Your task to perform on an android device: find snoozed emails in the gmail app Image 0: 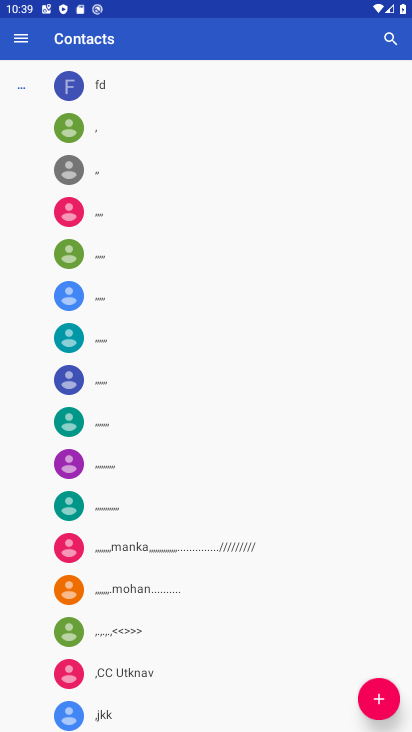
Step 0: press back button
Your task to perform on an android device: find snoozed emails in the gmail app Image 1: 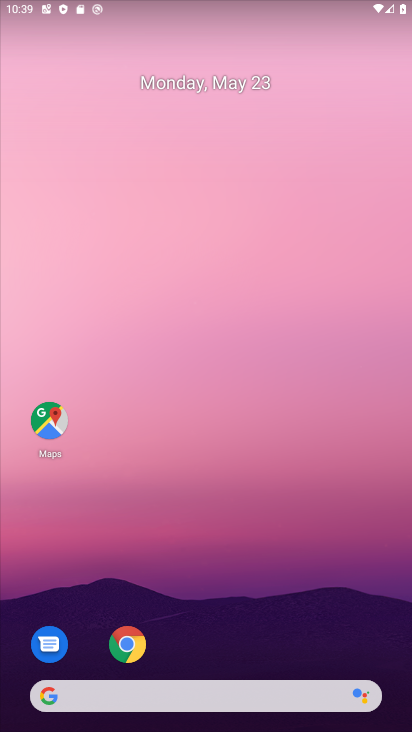
Step 1: drag from (252, 716) to (238, 268)
Your task to perform on an android device: find snoozed emails in the gmail app Image 2: 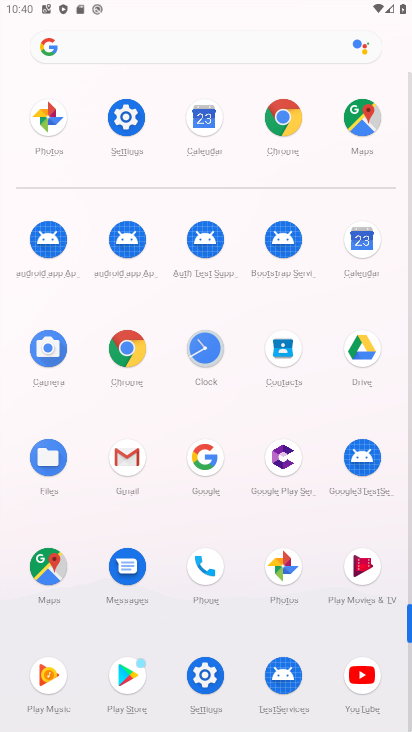
Step 2: click (120, 448)
Your task to perform on an android device: find snoozed emails in the gmail app Image 3: 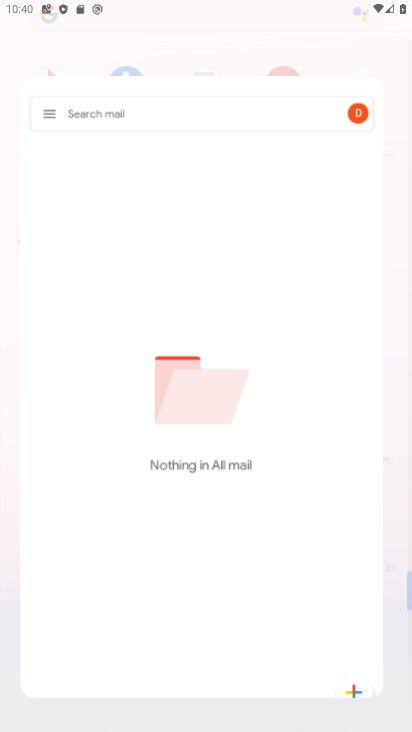
Step 3: click (131, 448)
Your task to perform on an android device: find snoozed emails in the gmail app Image 4: 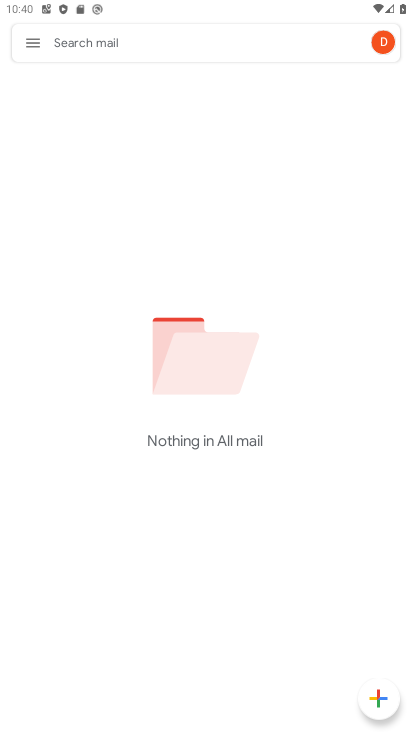
Step 4: drag from (24, 44) to (2, 546)
Your task to perform on an android device: find snoozed emails in the gmail app Image 5: 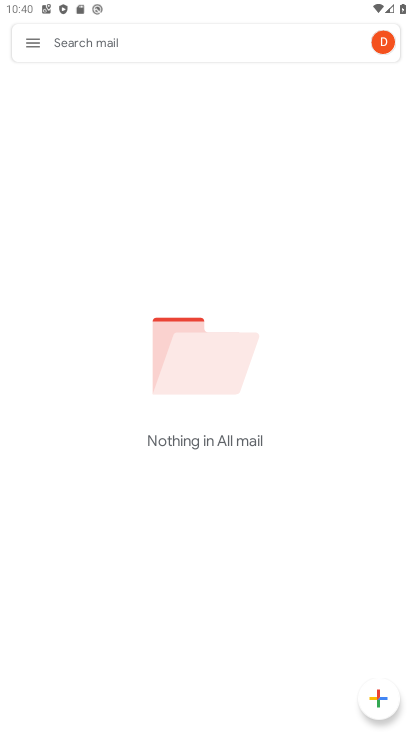
Step 5: click (38, 46)
Your task to perform on an android device: find snoozed emails in the gmail app Image 6: 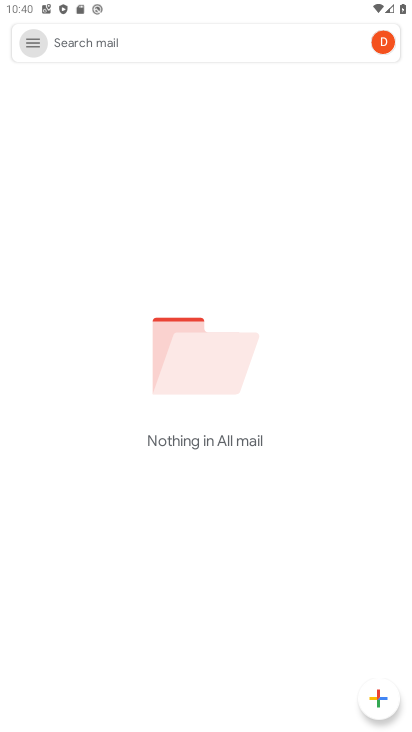
Step 6: click (38, 46)
Your task to perform on an android device: find snoozed emails in the gmail app Image 7: 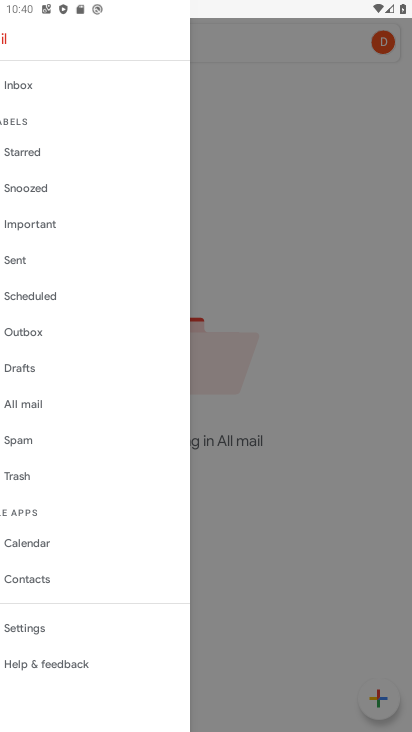
Step 7: click (37, 50)
Your task to perform on an android device: find snoozed emails in the gmail app Image 8: 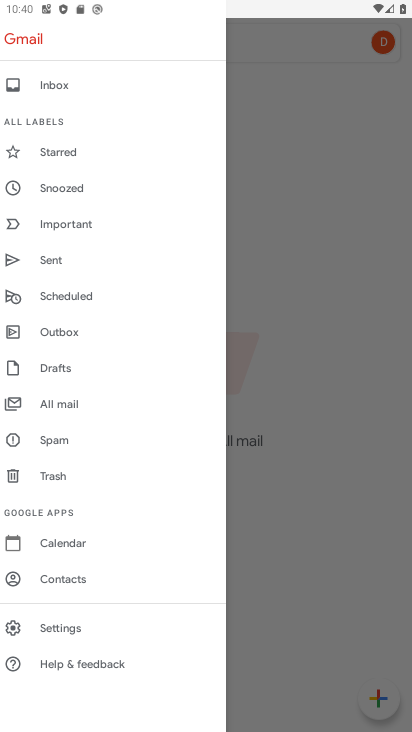
Step 8: click (37, 50)
Your task to perform on an android device: find snoozed emails in the gmail app Image 9: 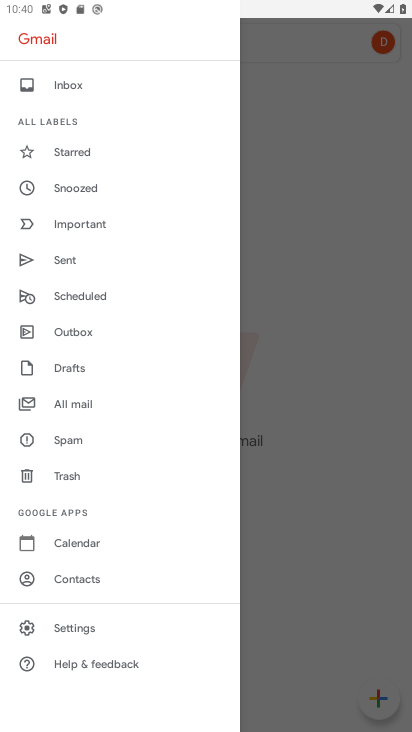
Step 9: drag from (37, 50) to (219, 238)
Your task to perform on an android device: find snoozed emails in the gmail app Image 10: 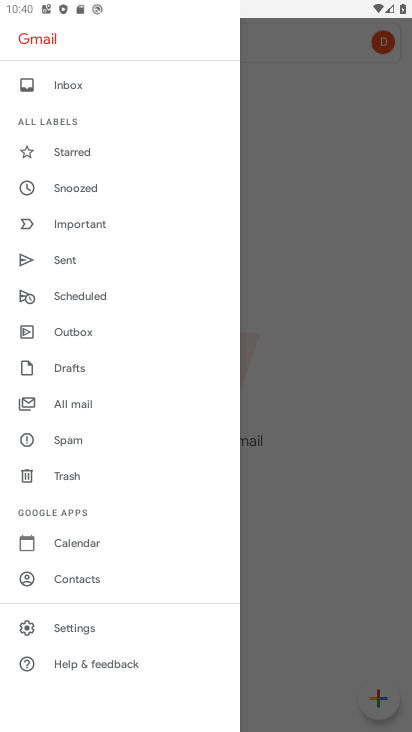
Step 10: drag from (129, 162) to (70, 190)
Your task to perform on an android device: find snoozed emails in the gmail app Image 11: 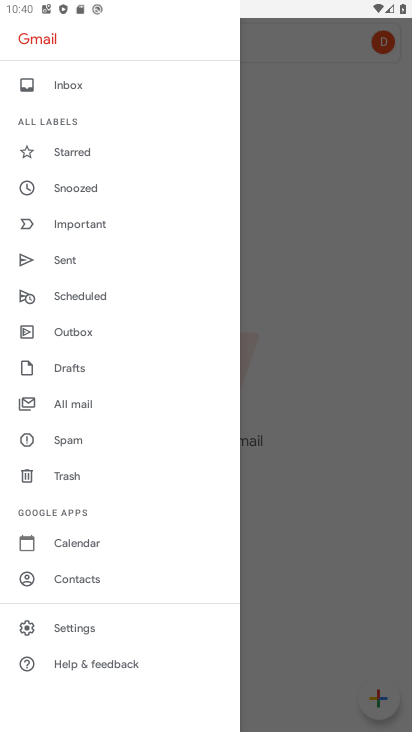
Step 11: click (54, 181)
Your task to perform on an android device: find snoozed emails in the gmail app Image 12: 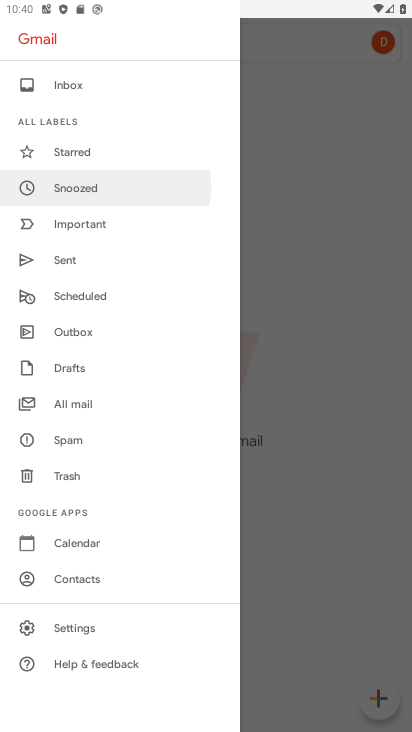
Step 12: click (71, 194)
Your task to perform on an android device: find snoozed emails in the gmail app Image 13: 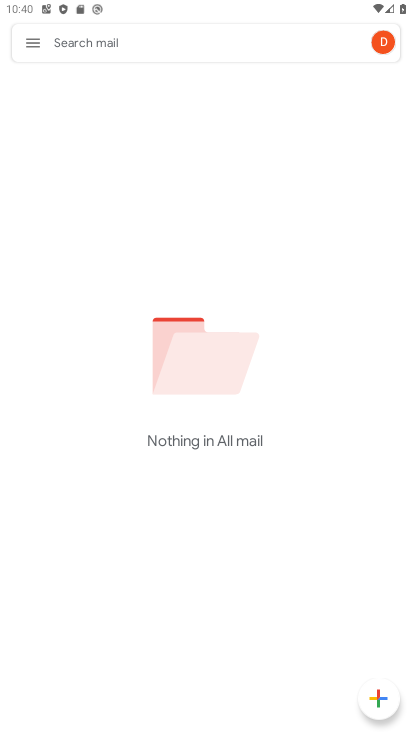
Step 13: click (74, 190)
Your task to perform on an android device: find snoozed emails in the gmail app Image 14: 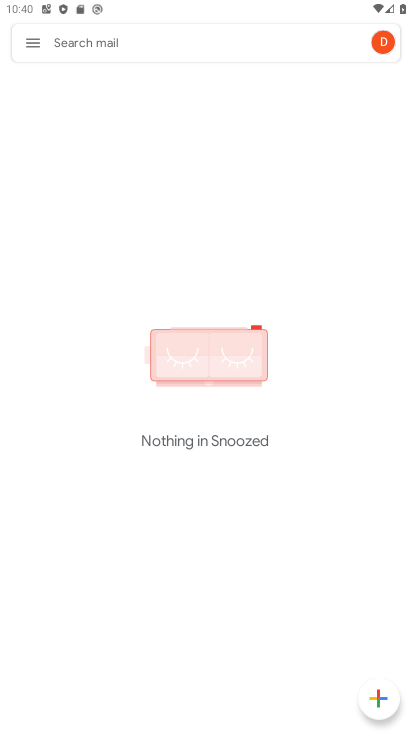
Step 14: task complete